Your task to perform on an android device: open the mobile data screen to see how much data has been used Image 0: 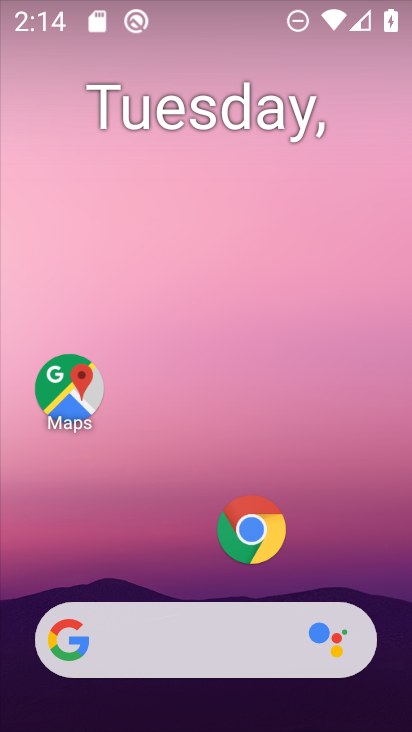
Step 0: press back button
Your task to perform on an android device: open the mobile data screen to see how much data has been used Image 1: 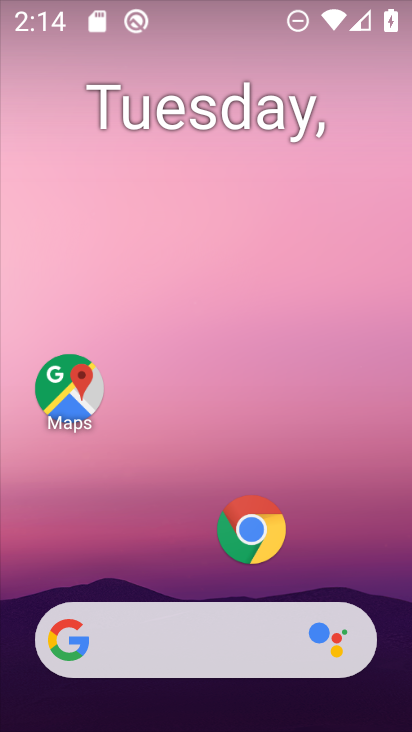
Step 1: drag from (285, 685) to (235, 155)
Your task to perform on an android device: open the mobile data screen to see how much data has been used Image 2: 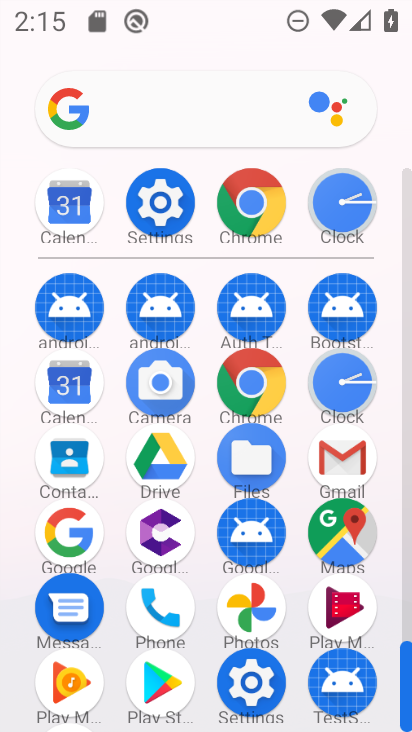
Step 2: click (155, 213)
Your task to perform on an android device: open the mobile data screen to see how much data has been used Image 3: 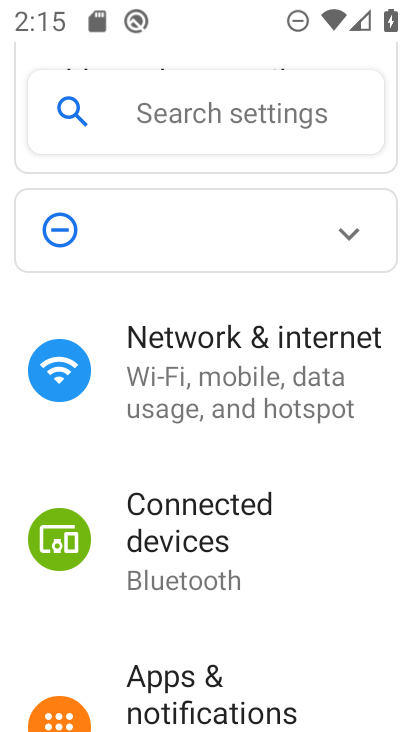
Step 3: click (177, 117)
Your task to perform on an android device: open the mobile data screen to see how much data has been used Image 4: 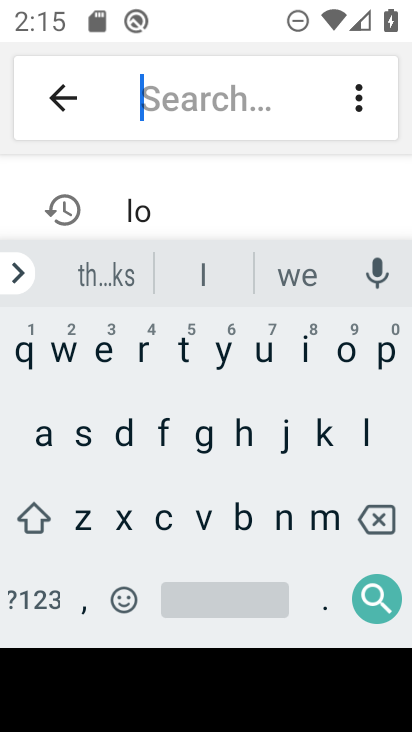
Step 4: click (123, 424)
Your task to perform on an android device: open the mobile data screen to see how much data has been used Image 5: 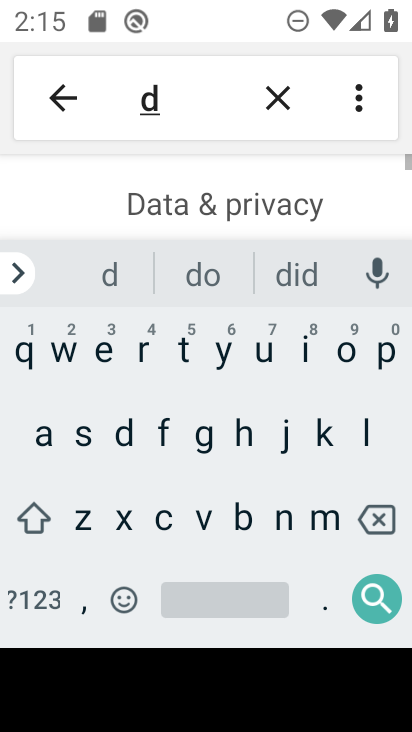
Step 5: click (41, 430)
Your task to perform on an android device: open the mobile data screen to see how much data has been used Image 6: 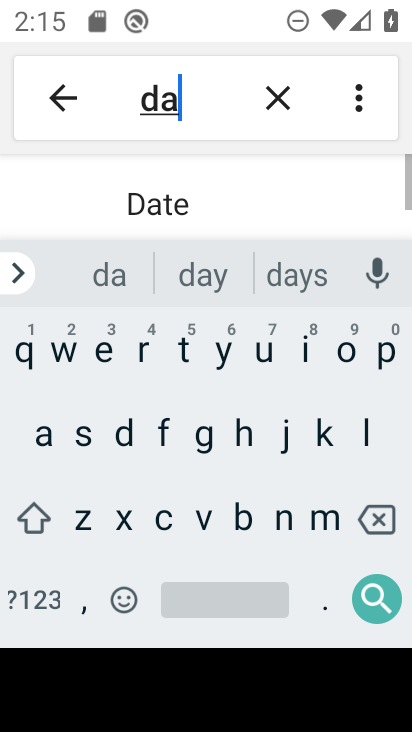
Step 6: click (123, 432)
Your task to perform on an android device: open the mobile data screen to see how much data has been used Image 7: 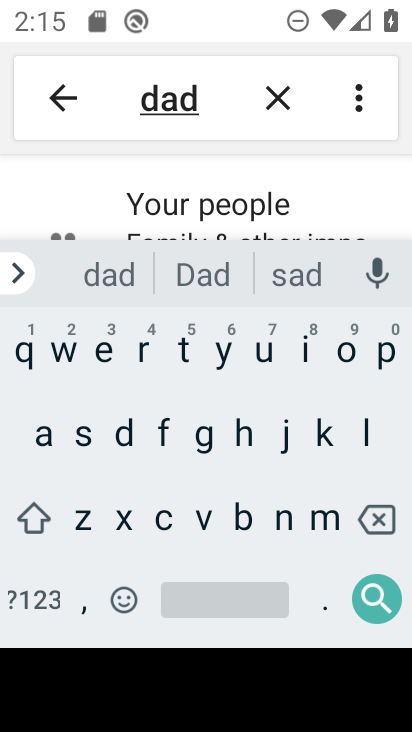
Step 7: click (46, 436)
Your task to perform on an android device: open the mobile data screen to see how much data has been used Image 8: 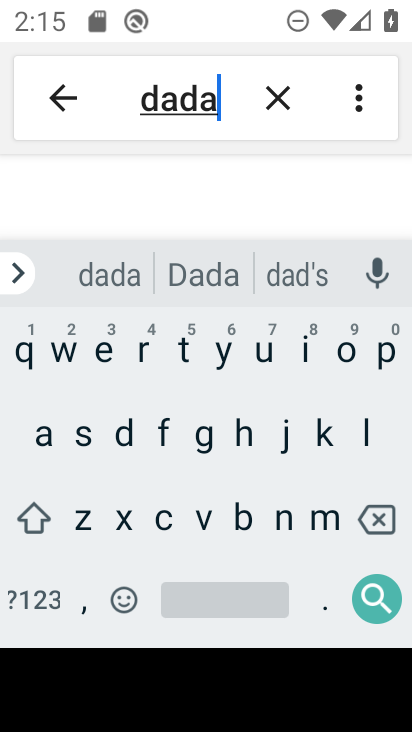
Step 8: click (209, 605)
Your task to perform on an android device: open the mobile data screen to see how much data has been used Image 9: 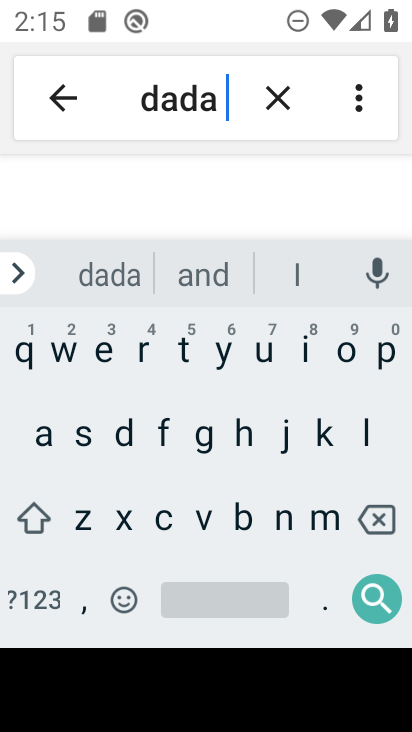
Step 9: click (259, 348)
Your task to perform on an android device: open the mobile data screen to see how much data has been used Image 10: 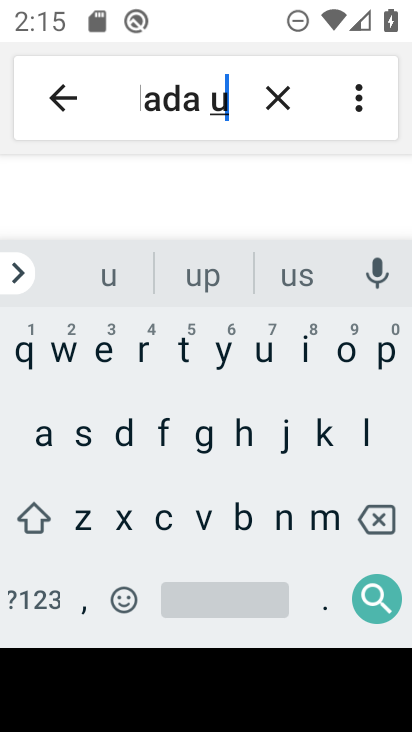
Step 10: click (271, 98)
Your task to perform on an android device: open the mobile data screen to see how much data has been used Image 11: 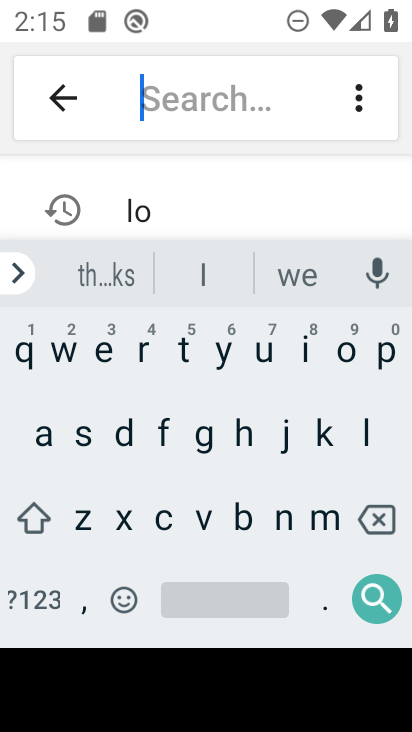
Step 11: click (120, 440)
Your task to perform on an android device: open the mobile data screen to see how much data has been used Image 12: 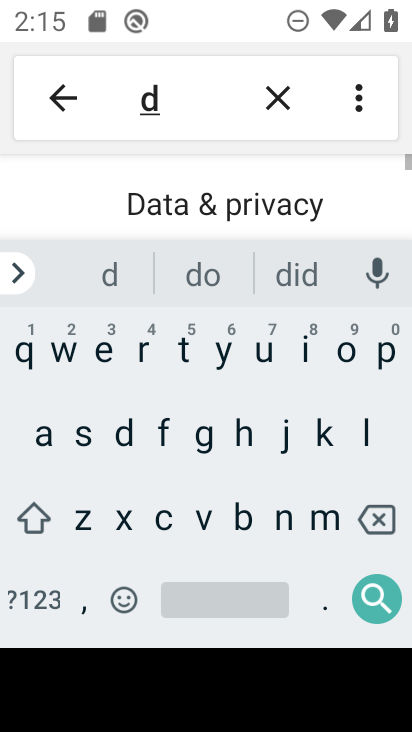
Step 12: click (38, 437)
Your task to perform on an android device: open the mobile data screen to see how much data has been used Image 13: 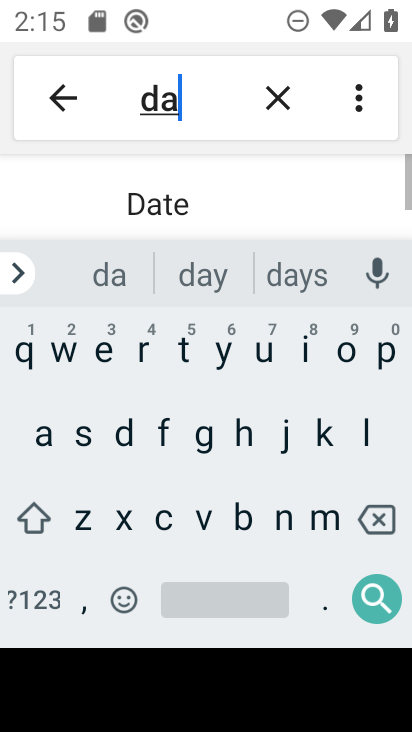
Step 13: click (183, 350)
Your task to perform on an android device: open the mobile data screen to see how much data has been used Image 14: 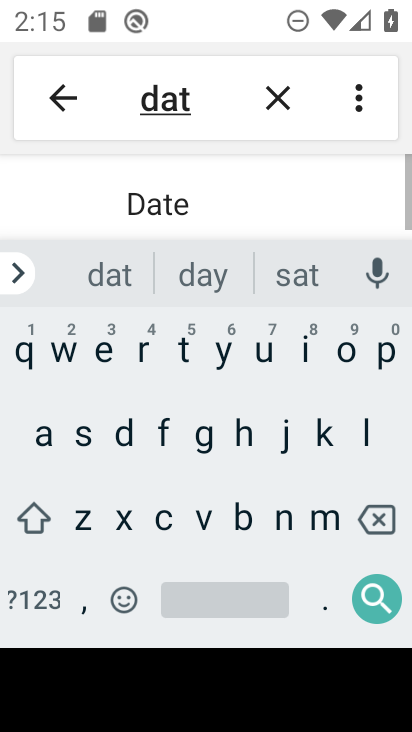
Step 14: click (38, 427)
Your task to perform on an android device: open the mobile data screen to see how much data has been used Image 15: 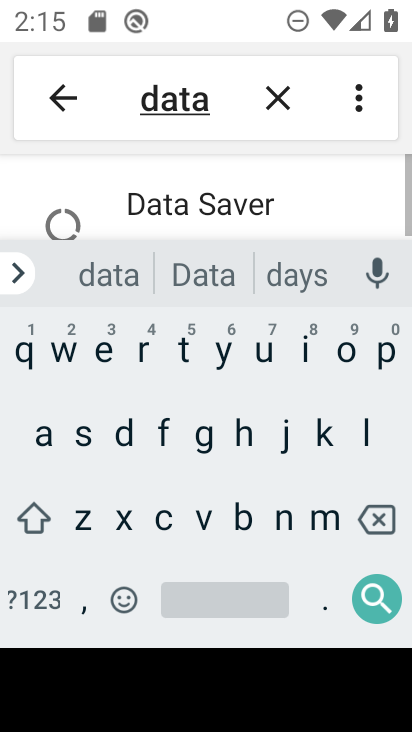
Step 15: click (225, 602)
Your task to perform on an android device: open the mobile data screen to see how much data has been used Image 16: 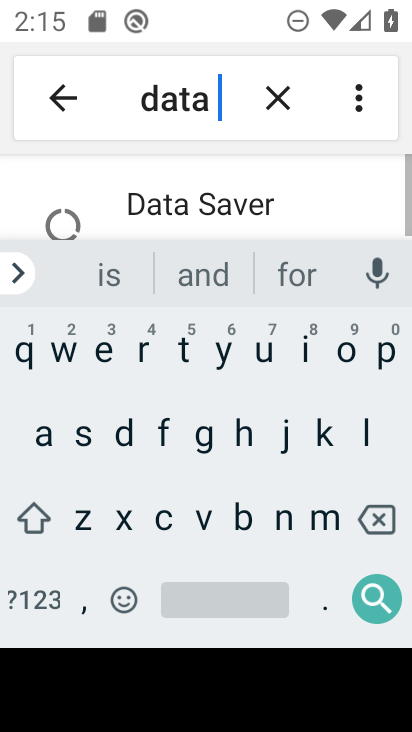
Step 16: click (252, 350)
Your task to perform on an android device: open the mobile data screen to see how much data has been used Image 17: 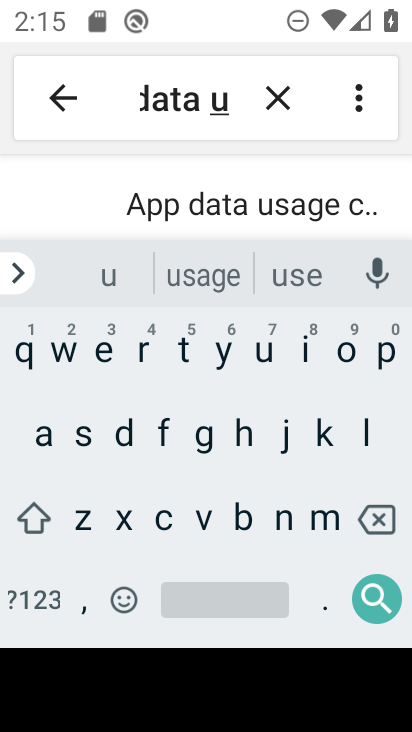
Step 17: press back button
Your task to perform on an android device: open the mobile data screen to see how much data has been used Image 18: 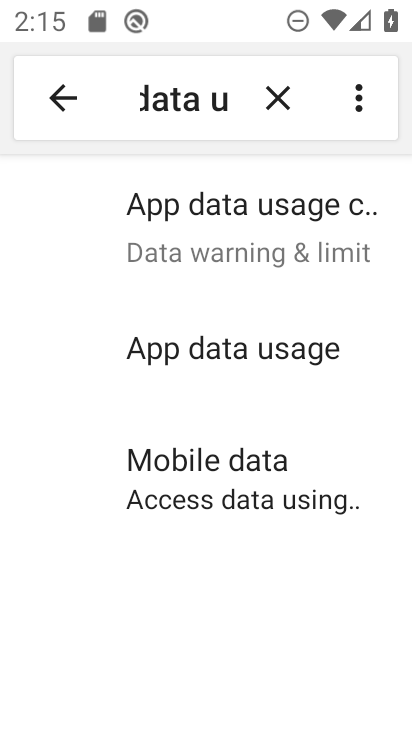
Step 18: click (223, 372)
Your task to perform on an android device: open the mobile data screen to see how much data has been used Image 19: 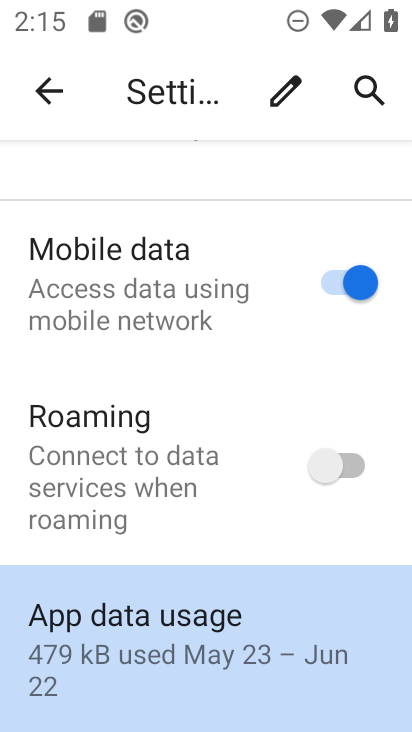
Step 19: click (123, 625)
Your task to perform on an android device: open the mobile data screen to see how much data has been used Image 20: 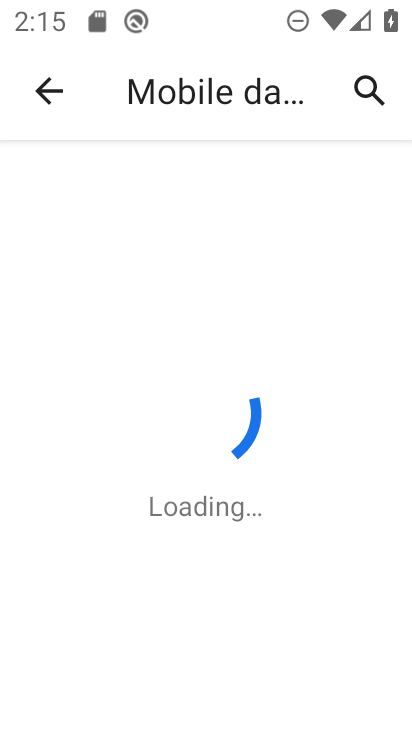
Step 20: task complete